Your task to perform on an android device: turn notification dots off Image 0: 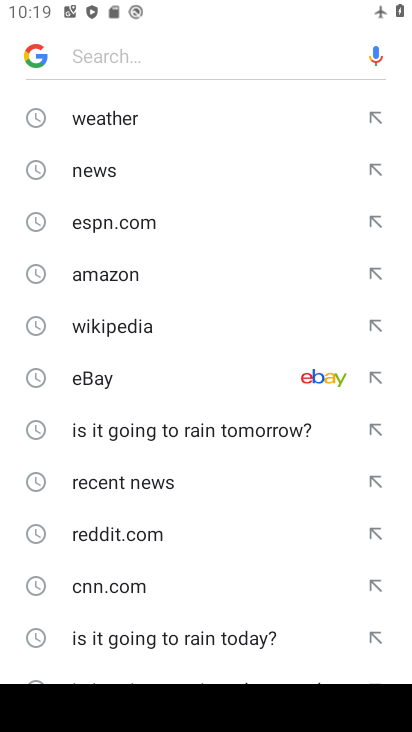
Step 0: press home button
Your task to perform on an android device: turn notification dots off Image 1: 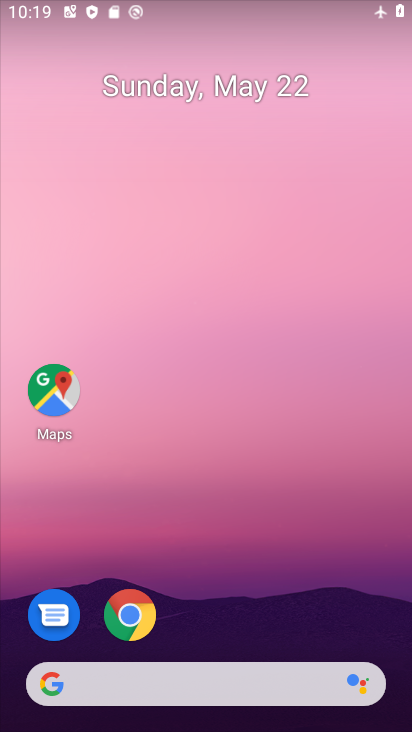
Step 1: drag from (254, 561) to (239, 168)
Your task to perform on an android device: turn notification dots off Image 2: 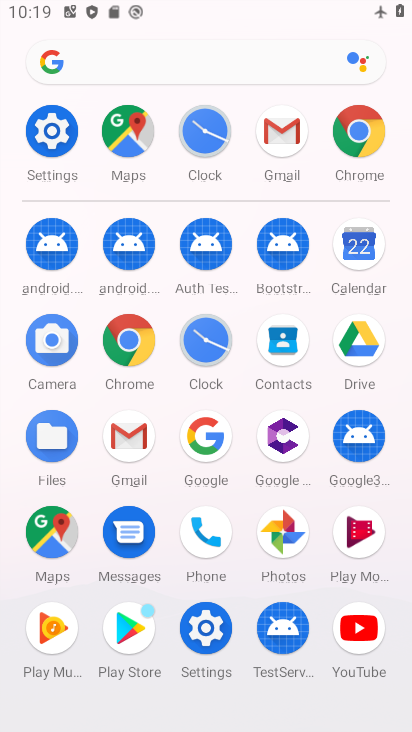
Step 2: click (62, 131)
Your task to perform on an android device: turn notification dots off Image 3: 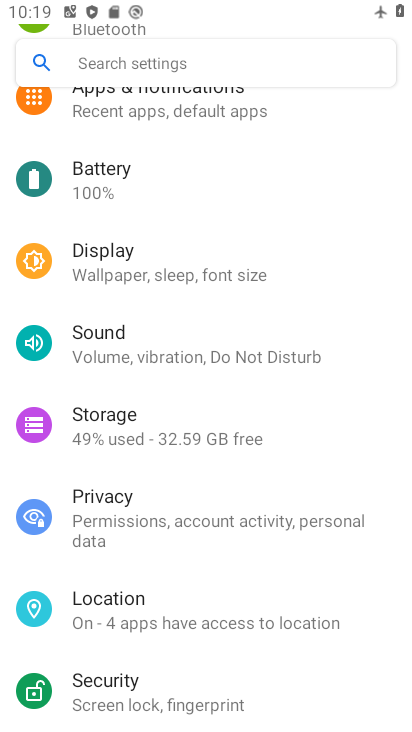
Step 3: drag from (248, 194) to (273, 509)
Your task to perform on an android device: turn notification dots off Image 4: 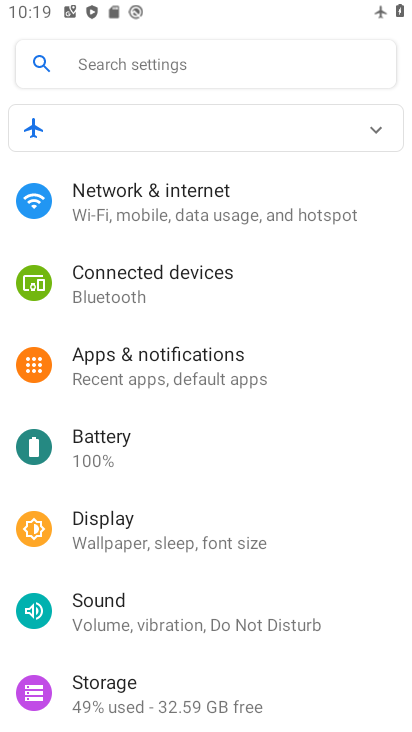
Step 4: click (218, 358)
Your task to perform on an android device: turn notification dots off Image 5: 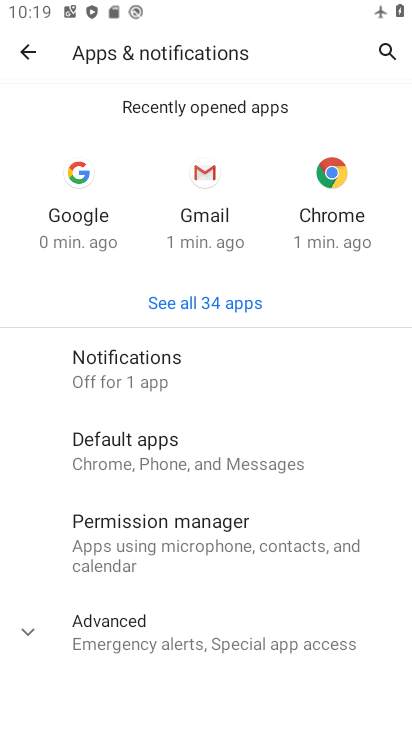
Step 5: click (141, 361)
Your task to perform on an android device: turn notification dots off Image 6: 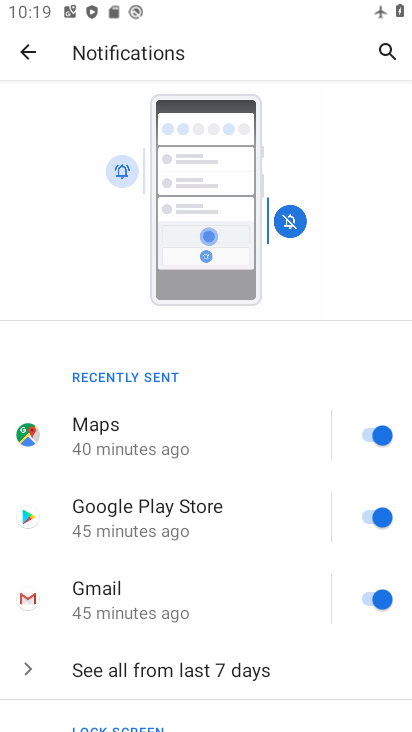
Step 6: drag from (189, 539) to (226, 7)
Your task to perform on an android device: turn notification dots off Image 7: 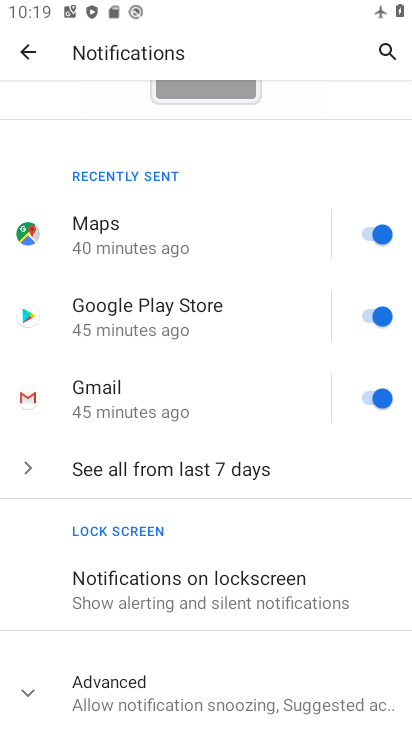
Step 7: click (180, 703)
Your task to perform on an android device: turn notification dots off Image 8: 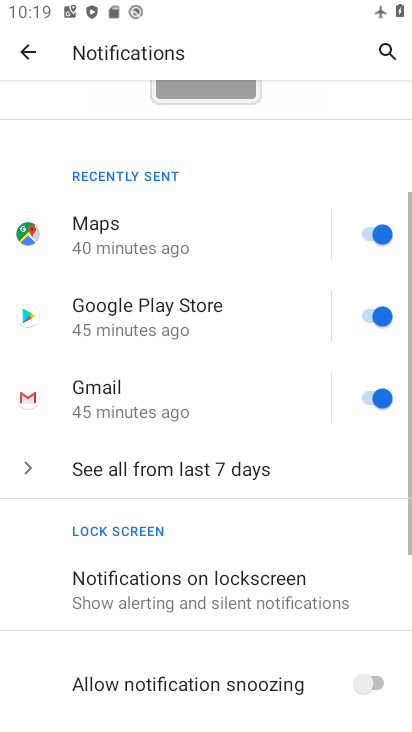
Step 8: drag from (183, 690) to (224, 186)
Your task to perform on an android device: turn notification dots off Image 9: 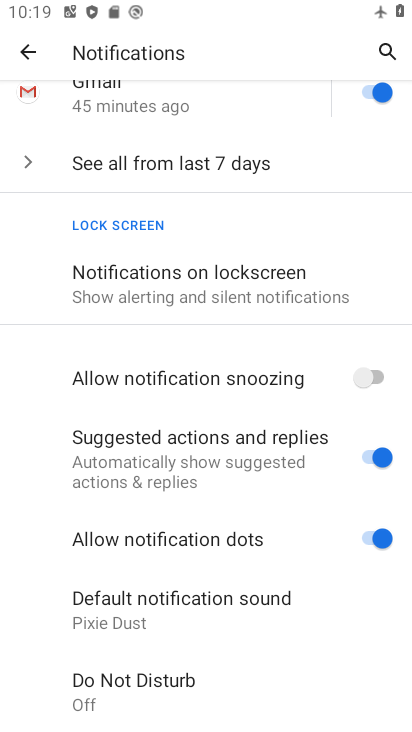
Step 9: click (381, 536)
Your task to perform on an android device: turn notification dots off Image 10: 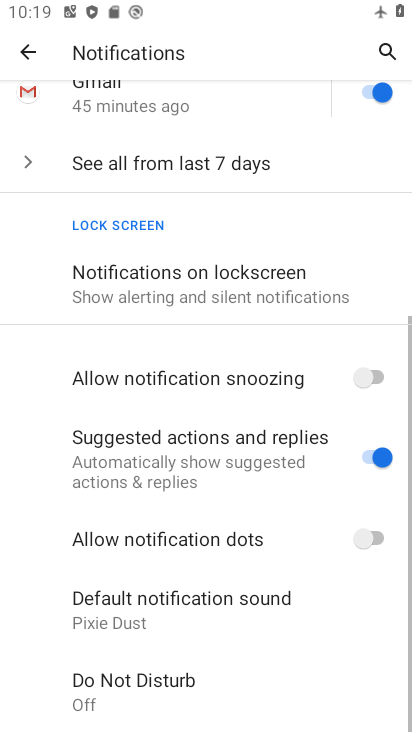
Step 10: task complete